Your task to perform on an android device: open chrome privacy settings Image 0: 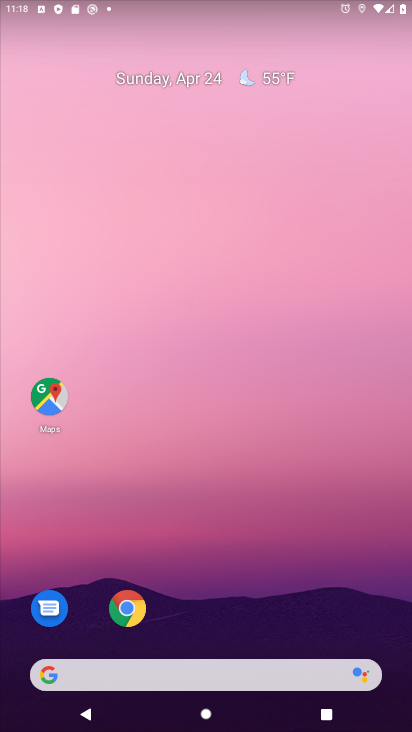
Step 0: click (127, 604)
Your task to perform on an android device: open chrome privacy settings Image 1: 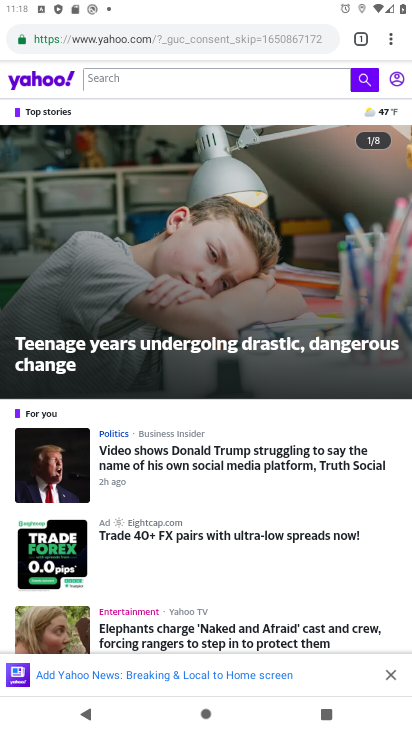
Step 1: click (389, 42)
Your task to perform on an android device: open chrome privacy settings Image 2: 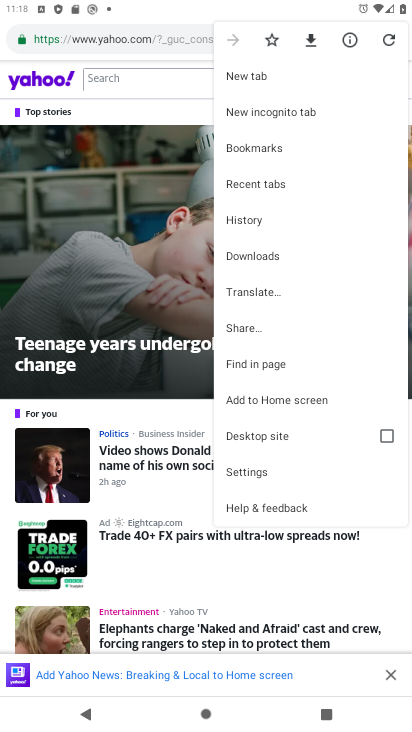
Step 2: drag from (299, 444) to (334, 215)
Your task to perform on an android device: open chrome privacy settings Image 3: 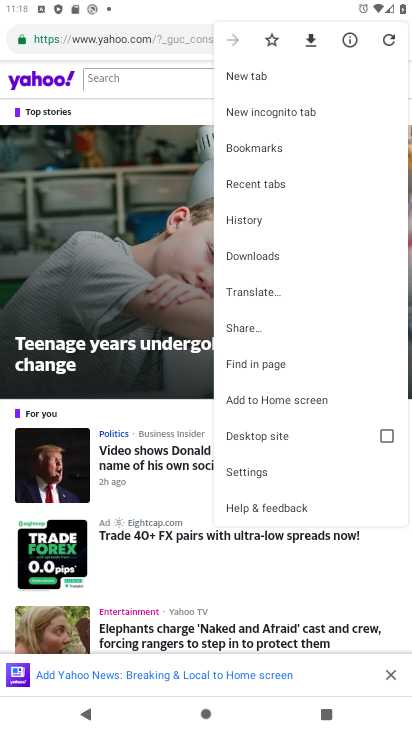
Step 3: click (239, 473)
Your task to perform on an android device: open chrome privacy settings Image 4: 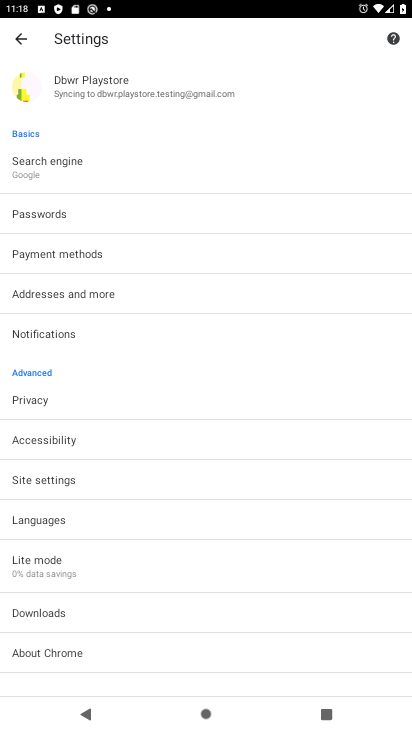
Step 4: click (20, 393)
Your task to perform on an android device: open chrome privacy settings Image 5: 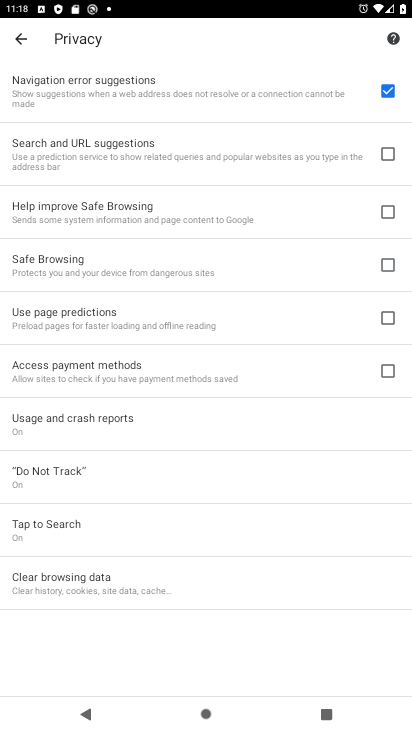
Step 5: task complete